Your task to perform on an android device: Open the web browser Image 0: 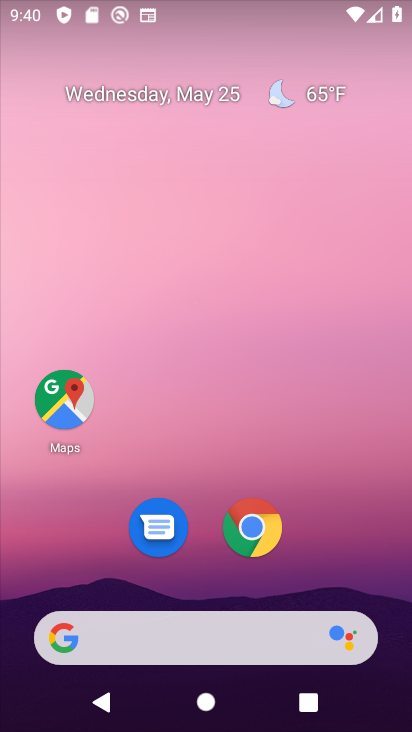
Step 0: click (255, 526)
Your task to perform on an android device: Open the web browser Image 1: 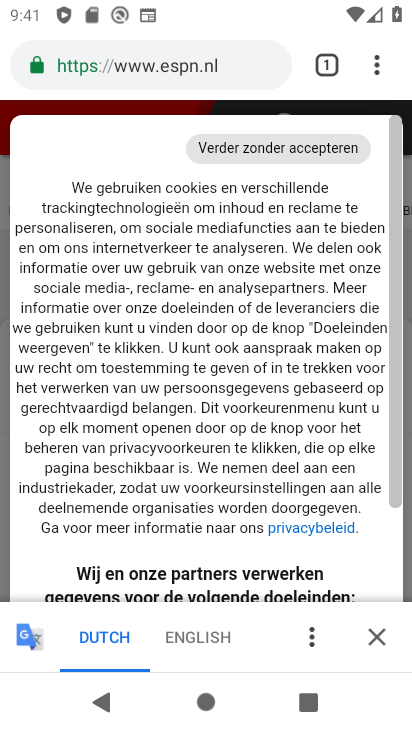
Step 1: task complete